Your task to perform on an android device: Do I have any events today? Image 0: 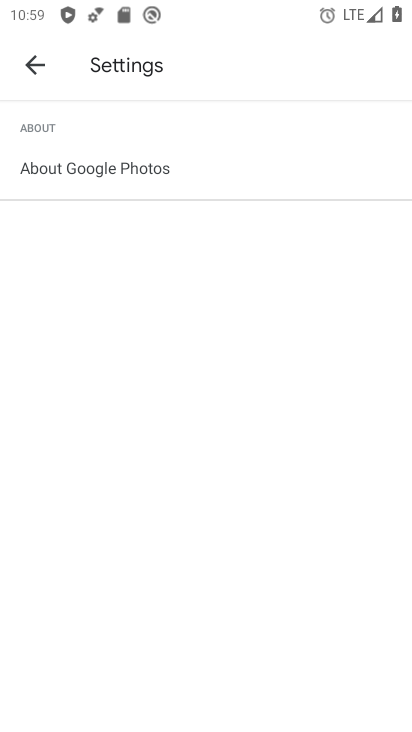
Step 0: drag from (334, 567) to (333, 492)
Your task to perform on an android device: Do I have any events today? Image 1: 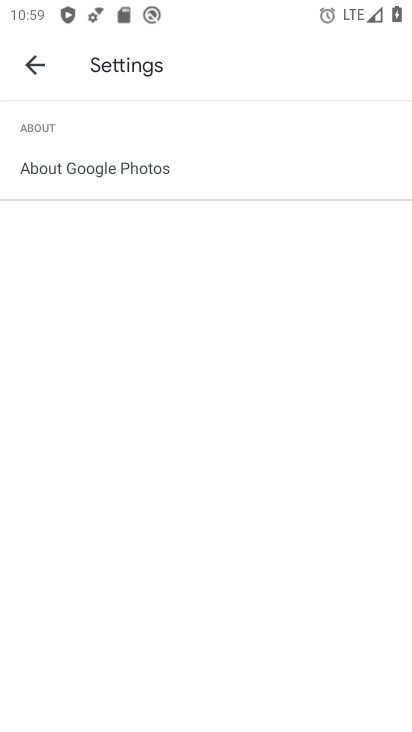
Step 1: press home button
Your task to perform on an android device: Do I have any events today? Image 2: 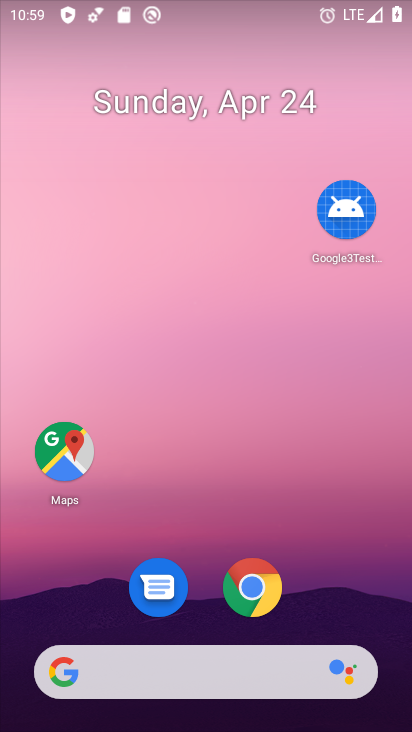
Step 2: drag from (357, 569) to (317, 113)
Your task to perform on an android device: Do I have any events today? Image 3: 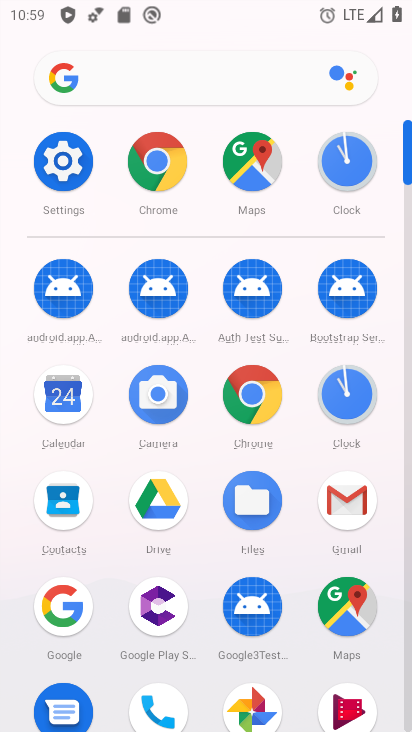
Step 3: click (65, 390)
Your task to perform on an android device: Do I have any events today? Image 4: 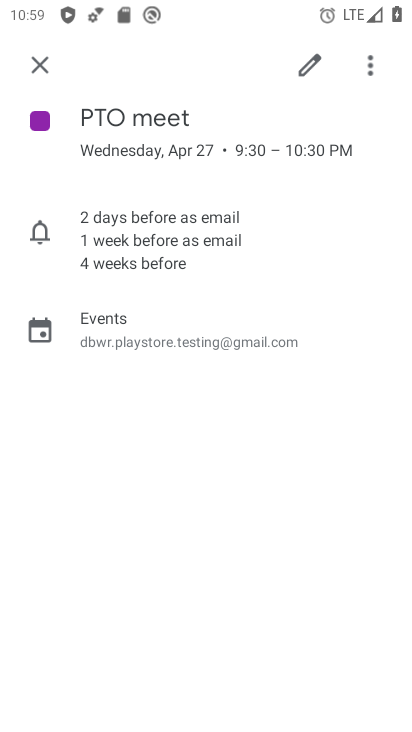
Step 4: click (37, 66)
Your task to perform on an android device: Do I have any events today? Image 5: 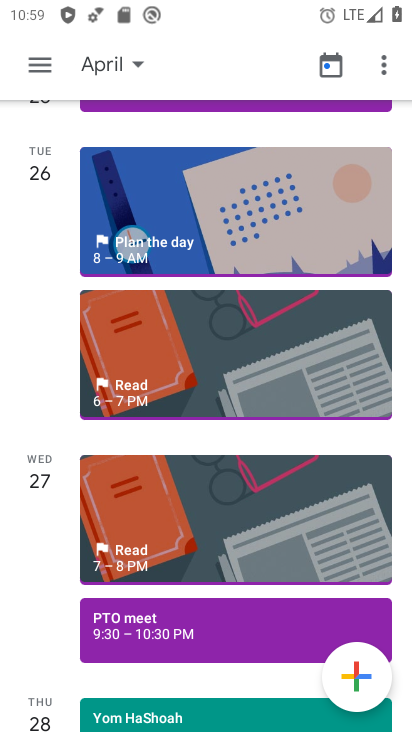
Step 5: task complete